Your task to perform on an android device: Open internet settings Image 0: 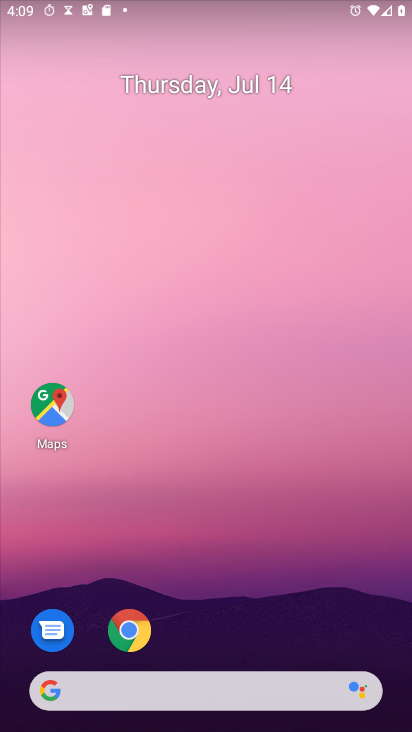
Step 0: drag from (215, 727) to (237, 258)
Your task to perform on an android device: Open internet settings Image 1: 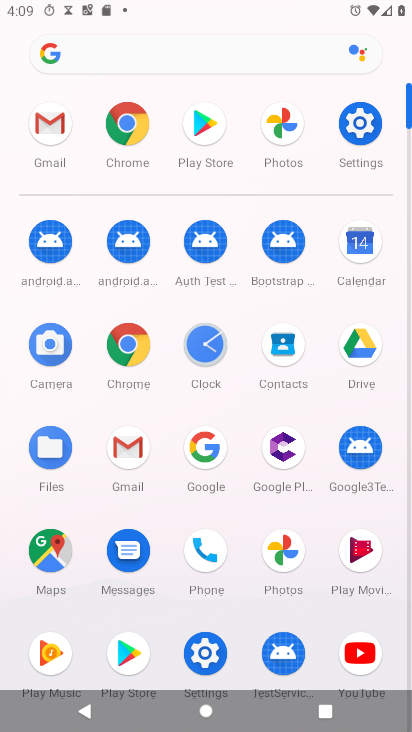
Step 1: click (355, 130)
Your task to perform on an android device: Open internet settings Image 2: 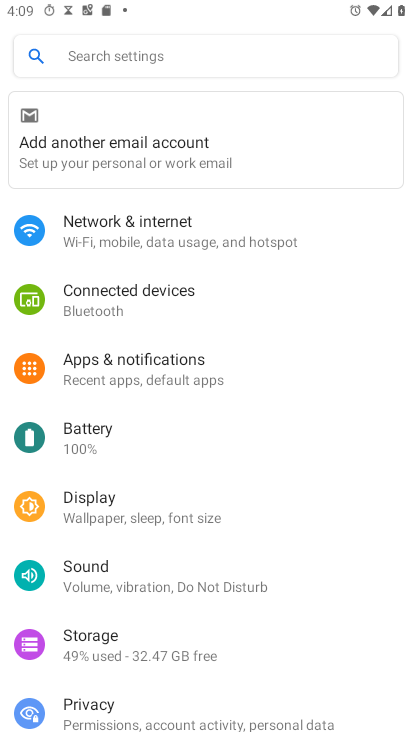
Step 2: click (110, 227)
Your task to perform on an android device: Open internet settings Image 3: 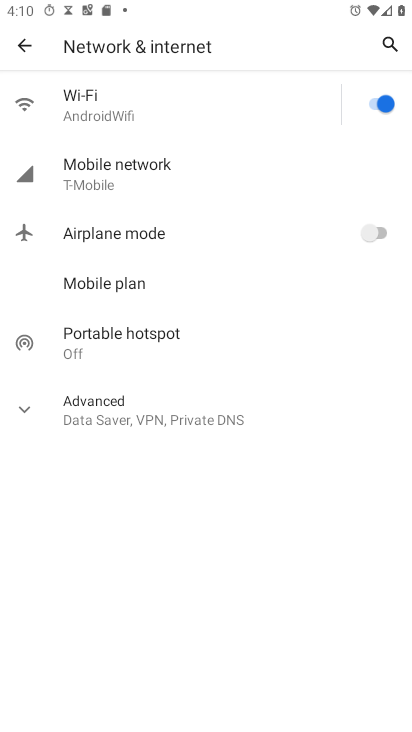
Step 3: task complete